Your task to perform on an android device: What's the weather like in Chicago? Image 0: 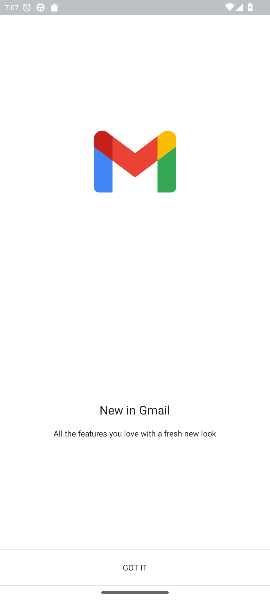
Step 0: press home button
Your task to perform on an android device: What's the weather like in Chicago? Image 1: 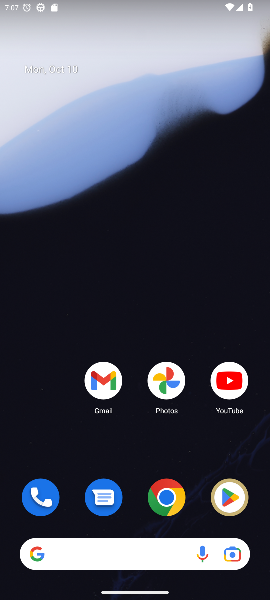
Step 1: drag from (136, 479) to (141, 114)
Your task to perform on an android device: What's the weather like in Chicago? Image 2: 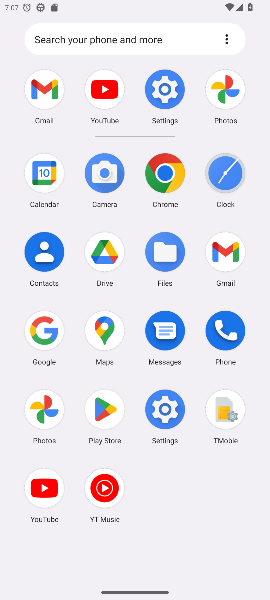
Step 2: click (47, 328)
Your task to perform on an android device: What's the weather like in Chicago? Image 3: 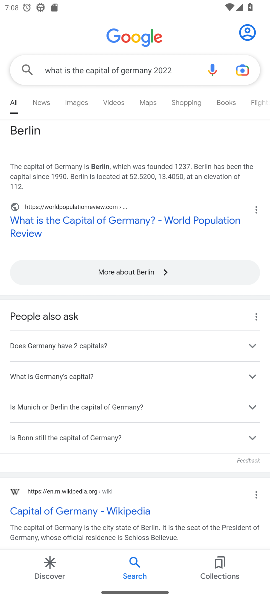
Step 3: click (183, 63)
Your task to perform on an android device: What's the weather like in Chicago? Image 4: 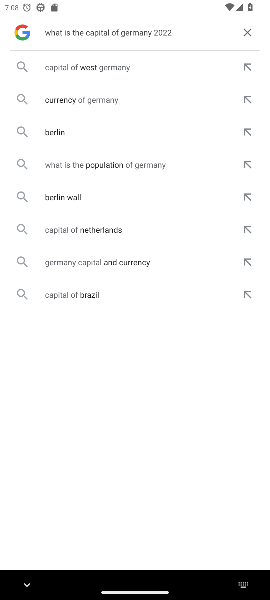
Step 4: click (252, 29)
Your task to perform on an android device: What's the weather like in Chicago? Image 5: 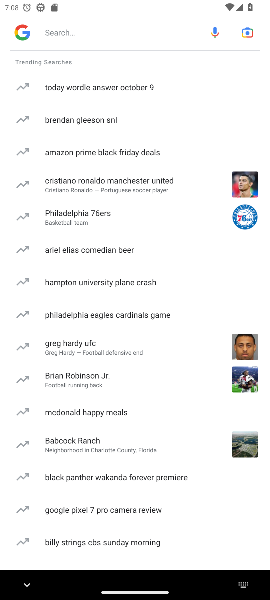
Step 5: drag from (44, 596) to (257, 599)
Your task to perform on an android device: What's the weather like in Chicago? Image 6: 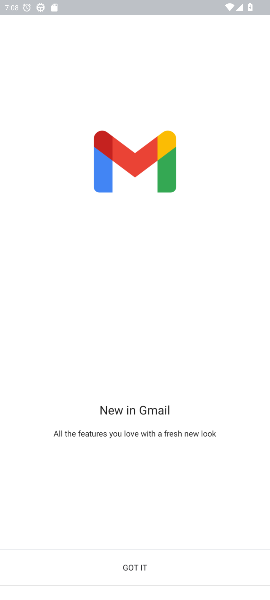
Step 6: click (125, 22)
Your task to perform on an android device: What's the weather like in Chicago? Image 7: 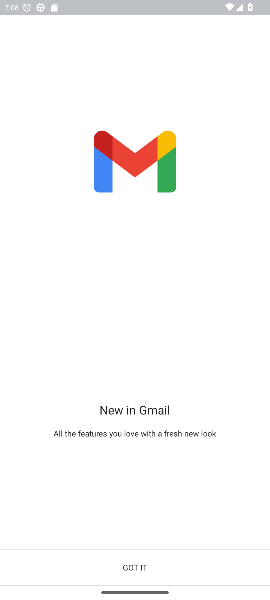
Step 7: press back button
Your task to perform on an android device: What's the weather like in Chicago? Image 8: 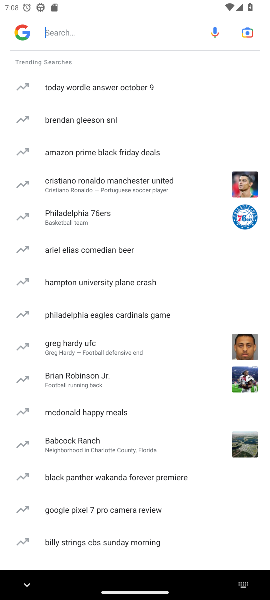
Step 8: click (113, 33)
Your task to perform on an android device: What's the weather like in Chicago? Image 9: 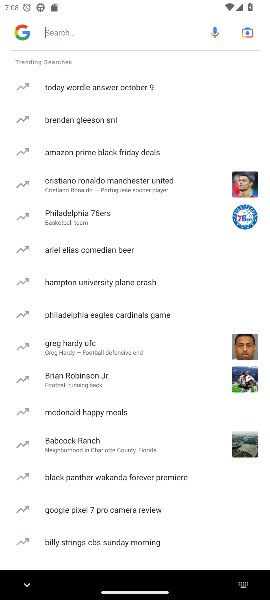
Step 9: type "What's the weather like in Chicago? "
Your task to perform on an android device: What's the weather like in Chicago? Image 10: 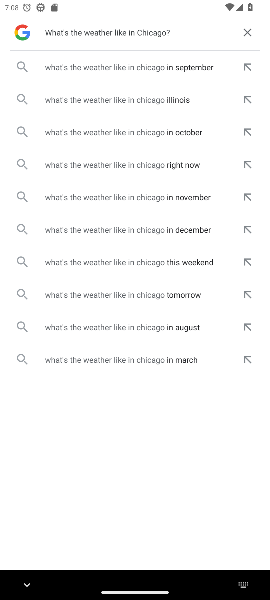
Step 10: click (112, 63)
Your task to perform on an android device: What's the weather like in Chicago? Image 11: 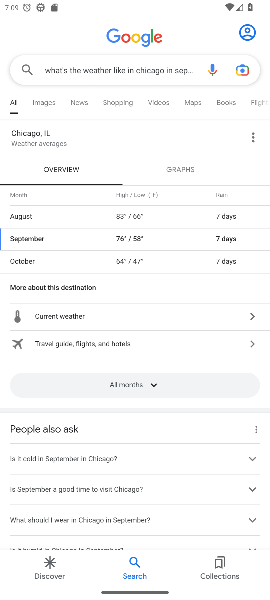
Step 11: task complete